Your task to perform on an android device: stop showing notifications on the lock screen Image 0: 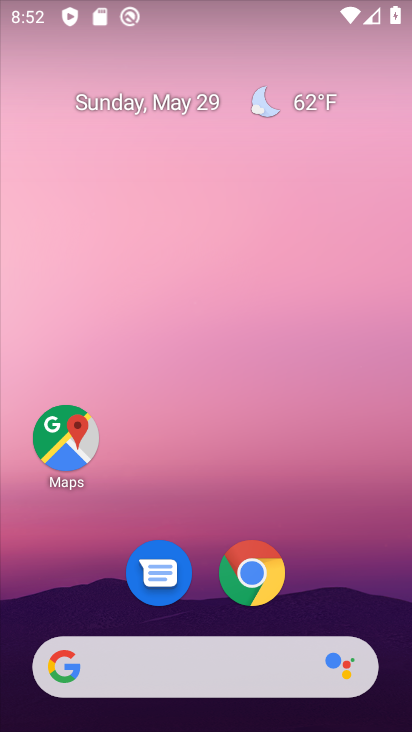
Step 0: press home button
Your task to perform on an android device: stop showing notifications on the lock screen Image 1: 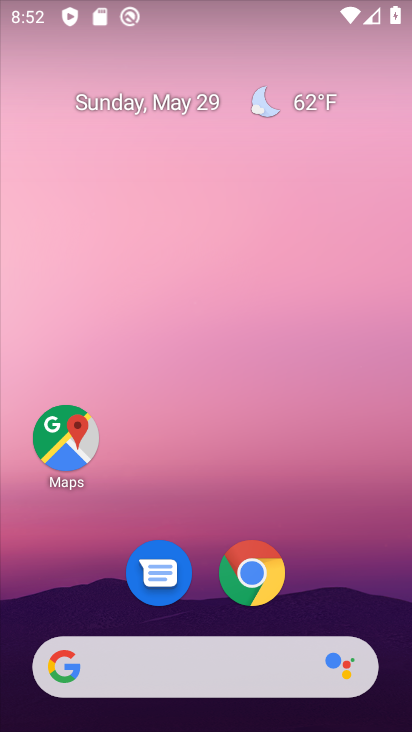
Step 1: drag from (354, 624) to (307, 128)
Your task to perform on an android device: stop showing notifications on the lock screen Image 2: 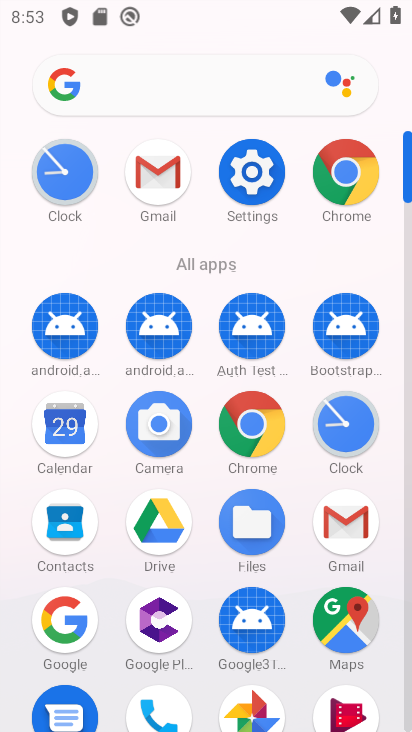
Step 2: click (253, 163)
Your task to perform on an android device: stop showing notifications on the lock screen Image 3: 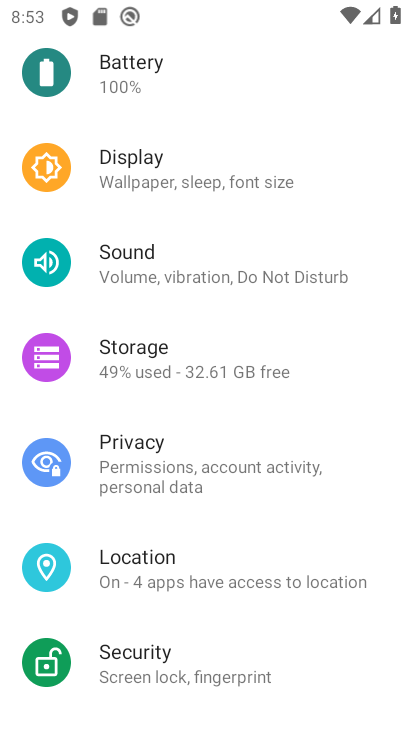
Step 3: drag from (264, 101) to (294, 550)
Your task to perform on an android device: stop showing notifications on the lock screen Image 4: 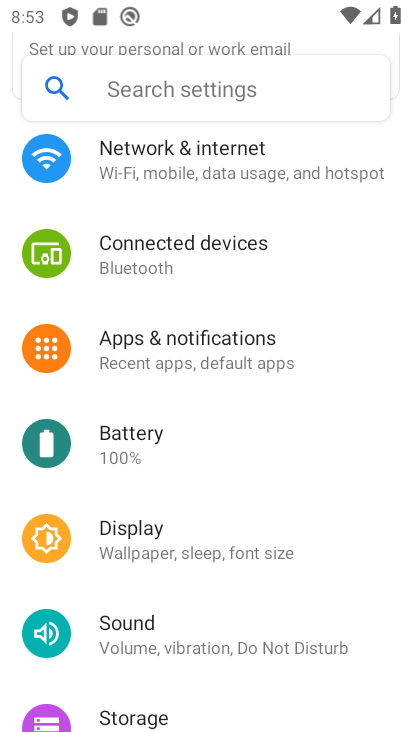
Step 4: drag from (331, 215) to (329, 405)
Your task to perform on an android device: stop showing notifications on the lock screen Image 5: 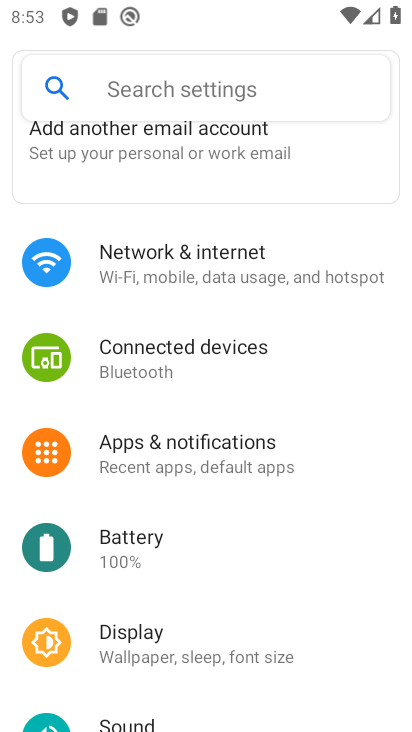
Step 5: click (178, 444)
Your task to perform on an android device: stop showing notifications on the lock screen Image 6: 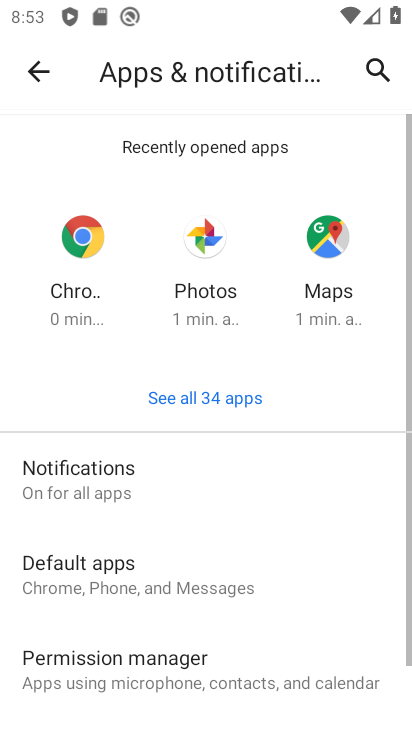
Step 6: click (78, 478)
Your task to perform on an android device: stop showing notifications on the lock screen Image 7: 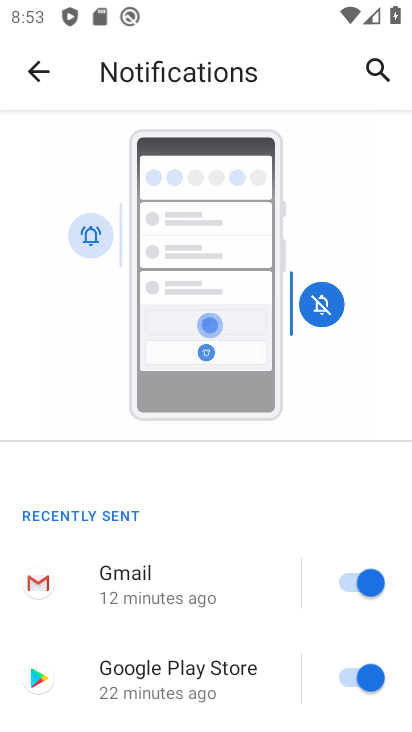
Step 7: drag from (261, 510) to (220, 85)
Your task to perform on an android device: stop showing notifications on the lock screen Image 8: 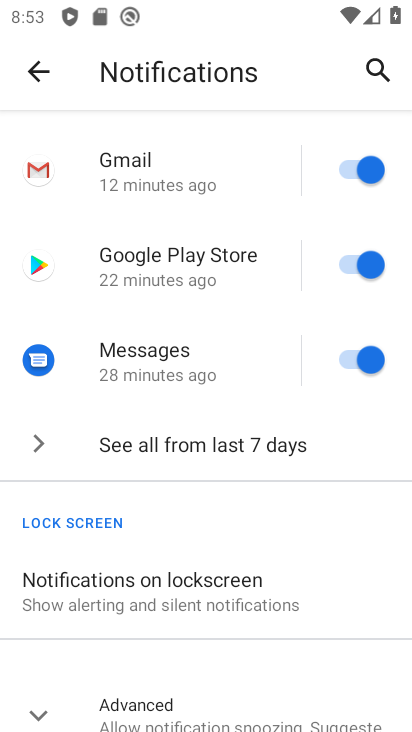
Step 8: click (149, 607)
Your task to perform on an android device: stop showing notifications on the lock screen Image 9: 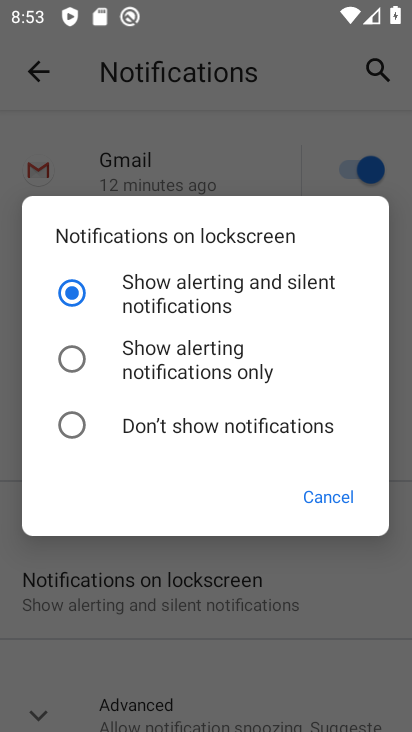
Step 9: click (76, 426)
Your task to perform on an android device: stop showing notifications on the lock screen Image 10: 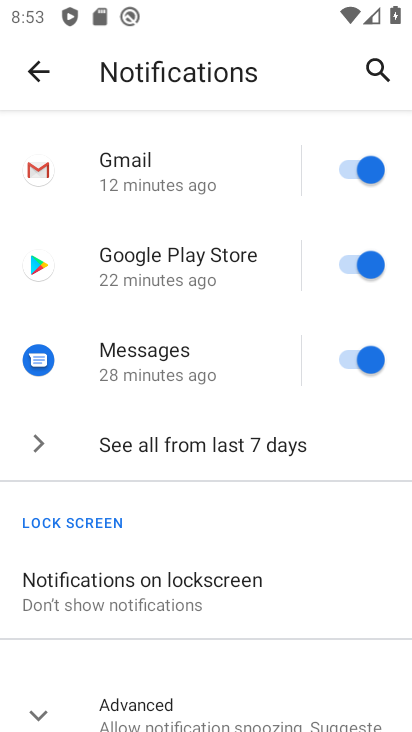
Step 10: task complete